Your task to perform on an android device: Open calendar and show me the second week of next month Image 0: 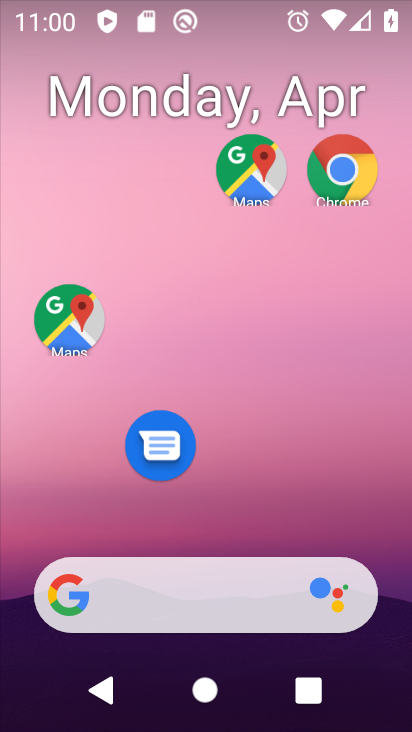
Step 0: drag from (253, 310) to (245, 45)
Your task to perform on an android device: Open calendar and show me the second week of next month Image 1: 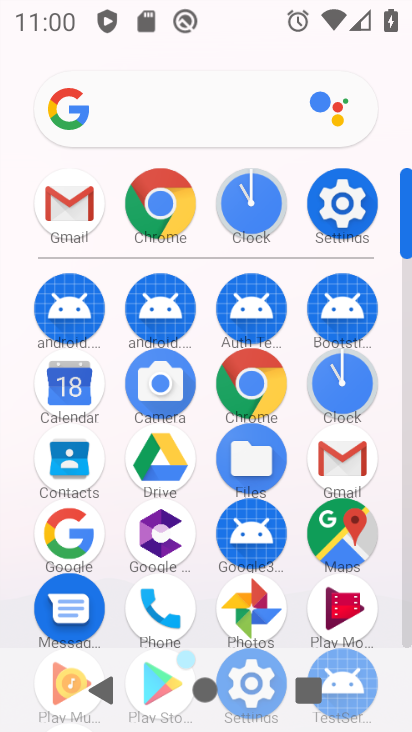
Step 1: click (70, 384)
Your task to perform on an android device: Open calendar and show me the second week of next month Image 2: 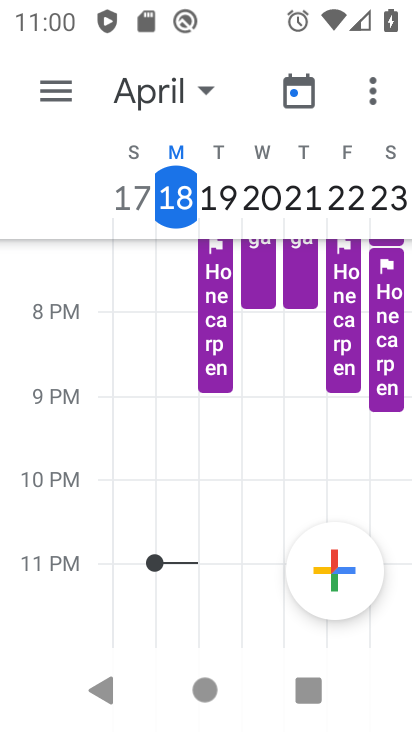
Step 2: click (169, 88)
Your task to perform on an android device: Open calendar and show me the second week of next month Image 3: 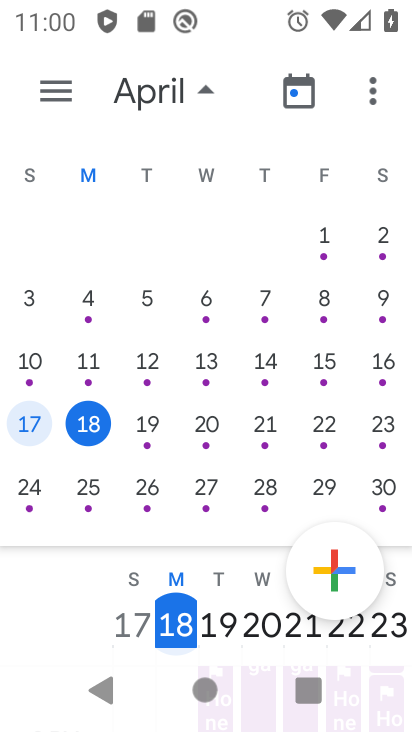
Step 3: drag from (349, 366) to (20, 346)
Your task to perform on an android device: Open calendar and show me the second week of next month Image 4: 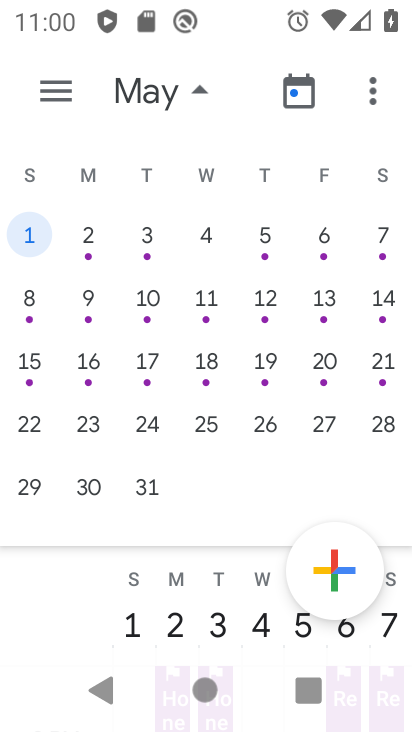
Step 4: click (83, 291)
Your task to perform on an android device: Open calendar and show me the second week of next month Image 5: 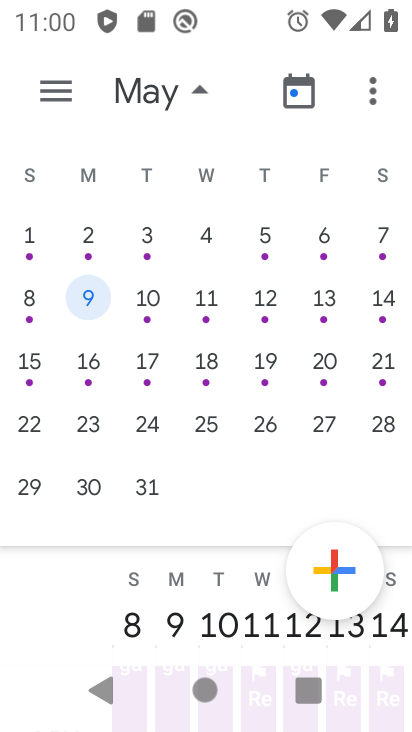
Step 5: task complete